Your task to perform on an android device: choose inbox layout in the gmail app Image 0: 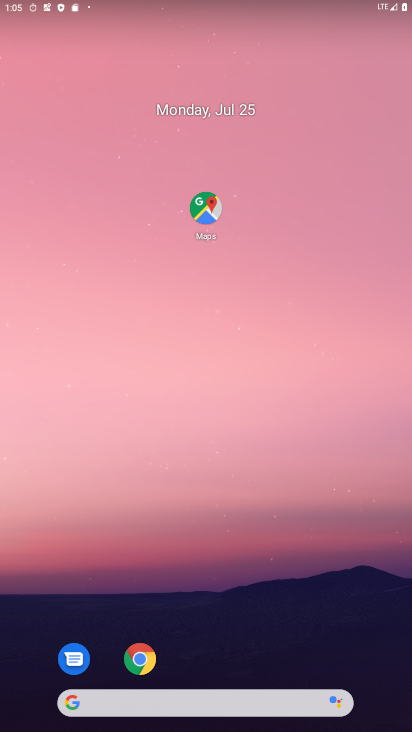
Step 0: click (324, 302)
Your task to perform on an android device: choose inbox layout in the gmail app Image 1: 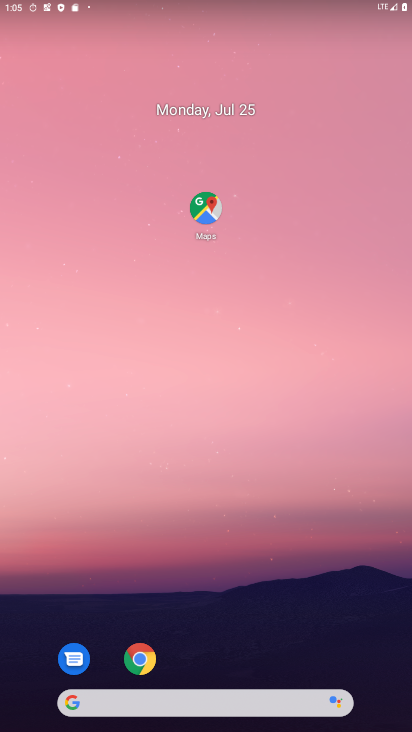
Step 1: drag from (11, 658) to (277, 115)
Your task to perform on an android device: choose inbox layout in the gmail app Image 2: 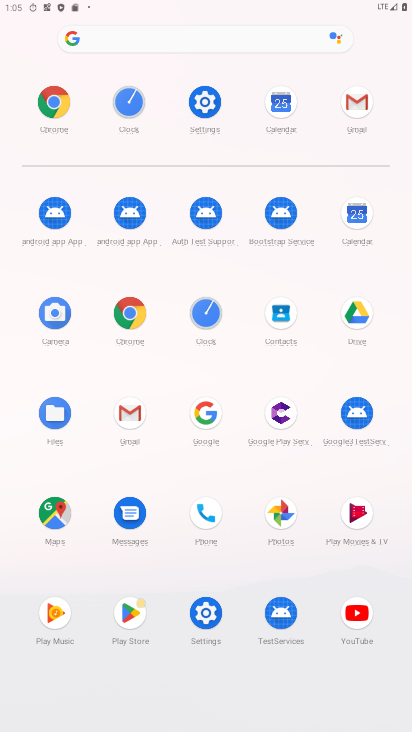
Step 2: click (125, 412)
Your task to perform on an android device: choose inbox layout in the gmail app Image 3: 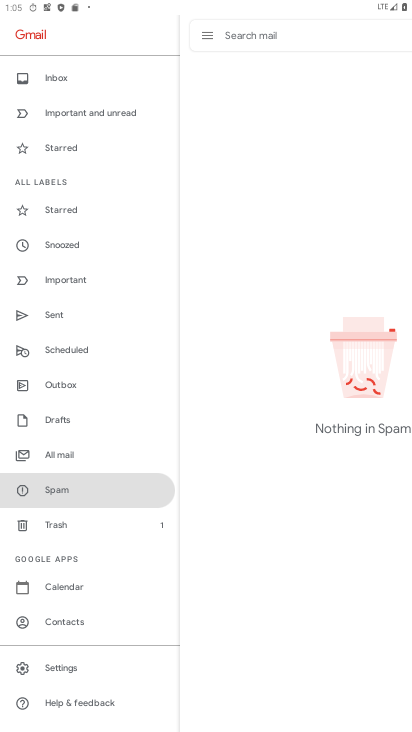
Step 3: click (72, 72)
Your task to perform on an android device: choose inbox layout in the gmail app Image 4: 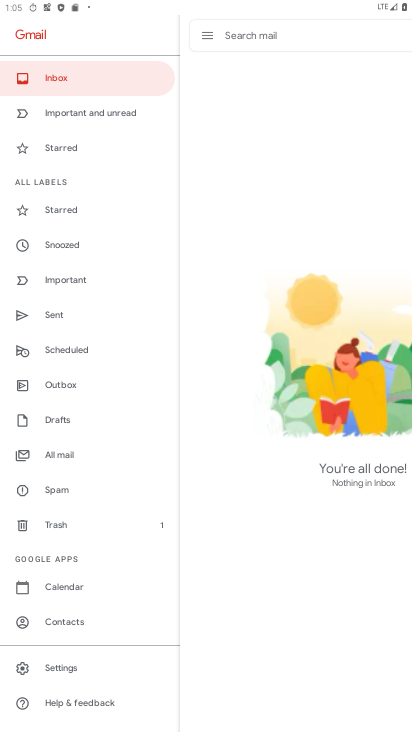
Step 4: click (61, 665)
Your task to perform on an android device: choose inbox layout in the gmail app Image 5: 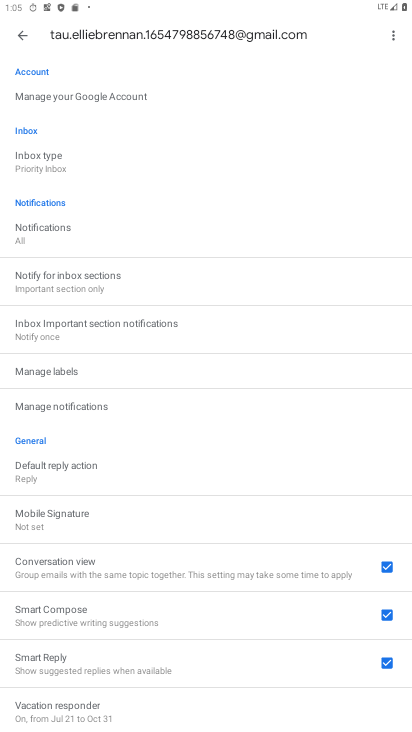
Step 5: task complete